Your task to perform on an android device: Go to Android settings Image 0: 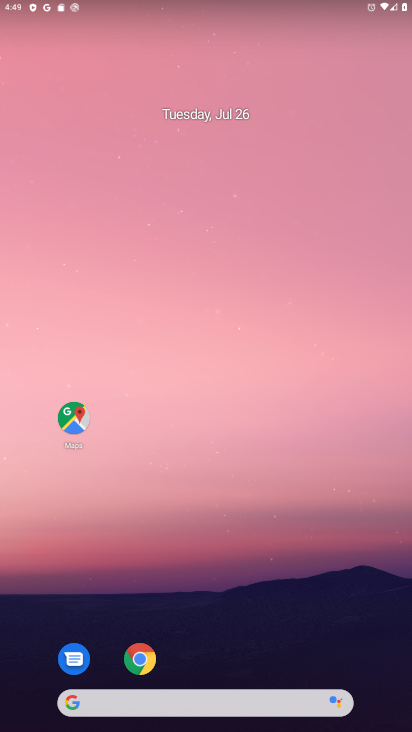
Step 0: press home button
Your task to perform on an android device: Go to Android settings Image 1: 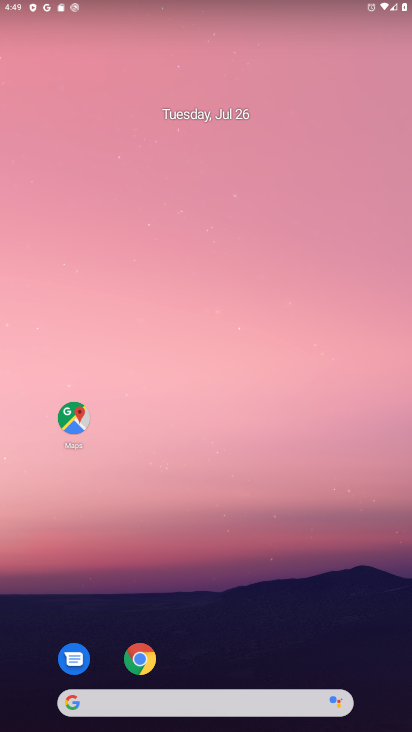
Step 1: drag from (237, 663) to (331, 29)
Your task to perform on an android device: Go to Android settings Image 2: 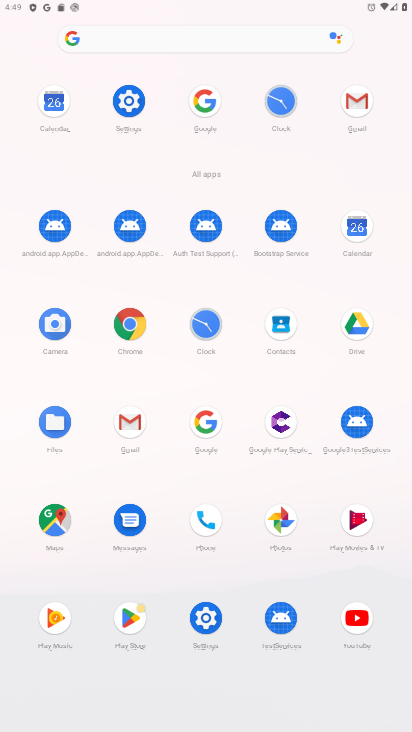
Step 2: click (208, 611)
Your task to perform on an android device: Go to Android settings Image 3: 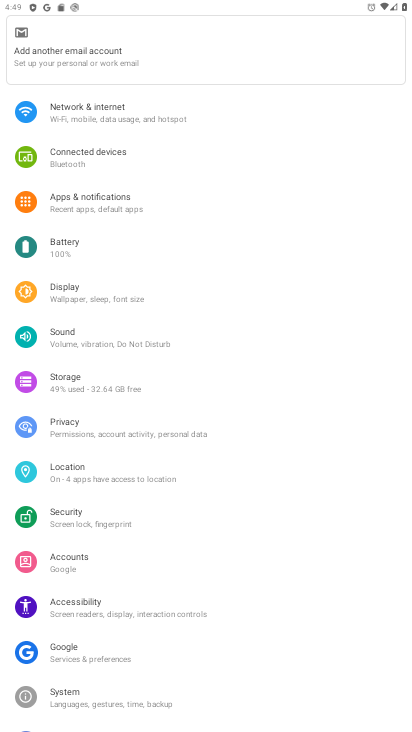
Step 3: drag from (172, 651) to (235, 138)
Your task to perform on an android device: Go to Android settings Image 4: 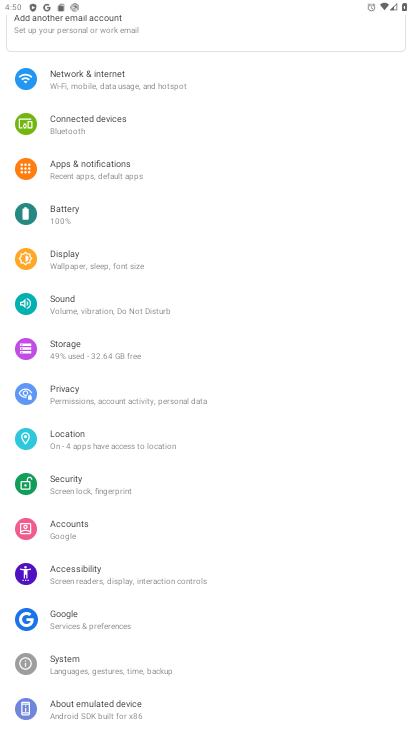
Step 4: click (153, 704)
Your task to perform on an android device: Go to Android settings Image 5: 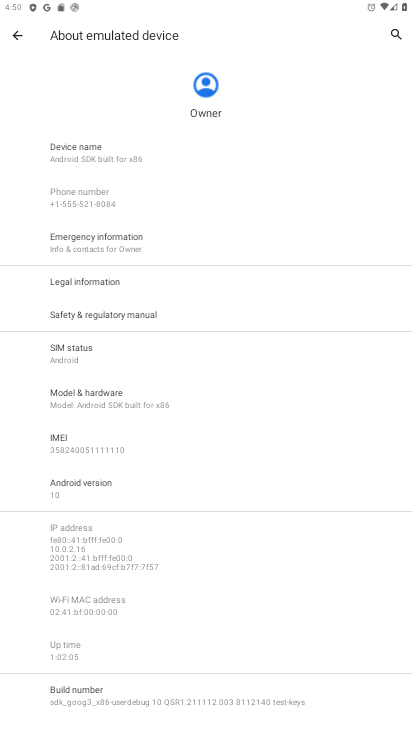
Step 5: click (127, 490)
Your task to perform on an android device: Go to Android settings Image 6: 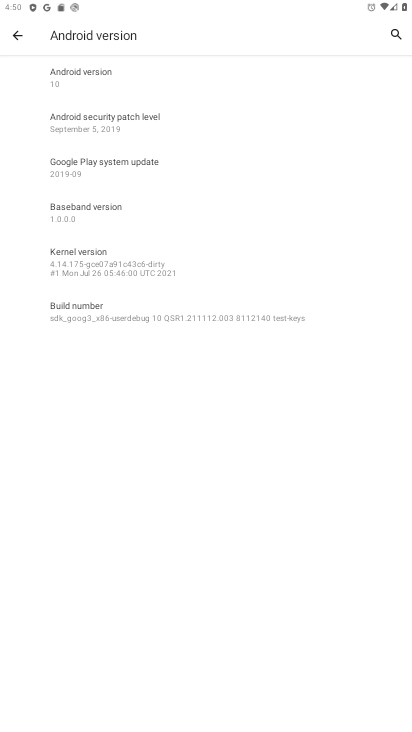
Step 6: task complete